Your task to perform on an android device: delete the emails in spam in the gmail app Image 0: 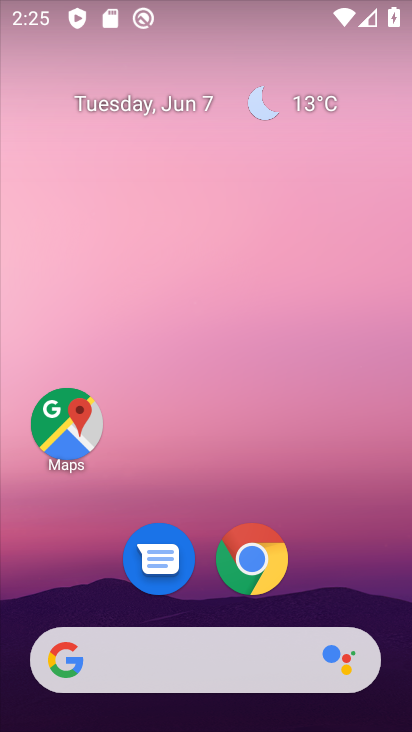
Step 0: drag from (331, 597) to (291, 61)
Your task to perform on an android device: delete the emails in spam in the gmail app Image 1: 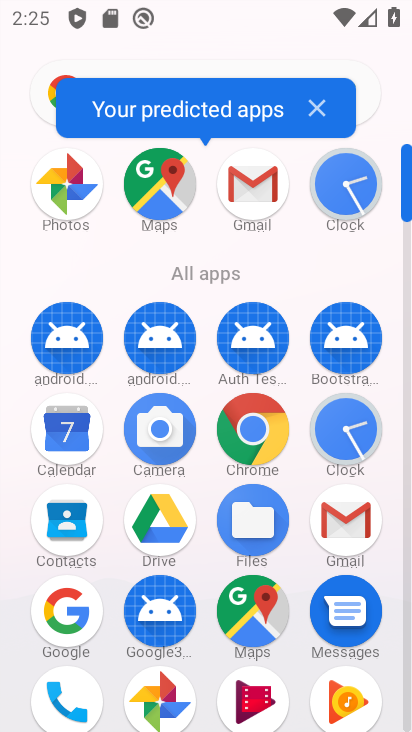
Step 1: click (252, 182)
Your task to perform on an android device: delete the emails in spam in the gmail app Image 2: 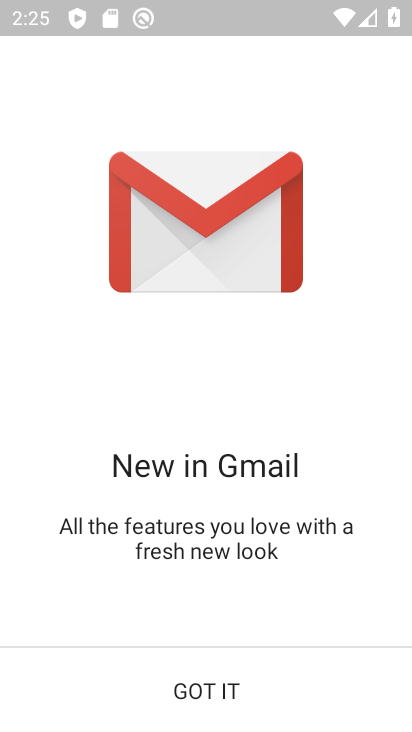
Step 2: click (212, 688)
Your task to perform on an android device: delete the emails in spam in the gmail app Image 3: 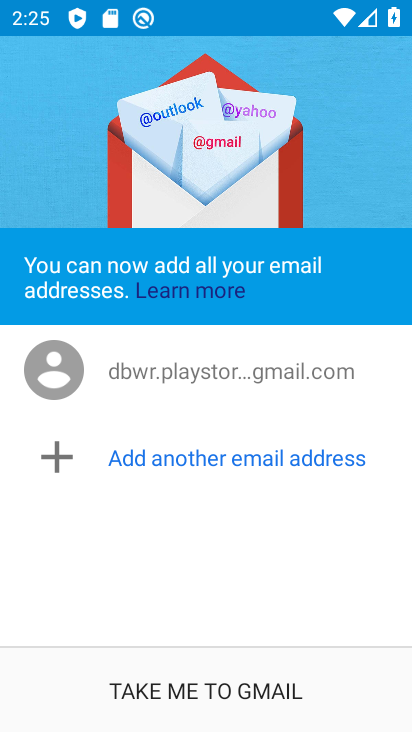
Step 3: click (198, 689)
Your task to perform on an android device: delete the emails in spam in the gmail app Image 4: 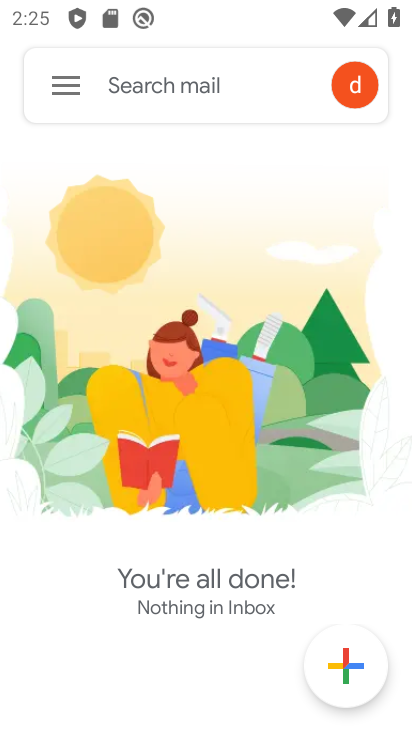
Step 4: click (66, 86)
Your task to perform on an android device: delete the emails in spam in the gmail app Image 5: 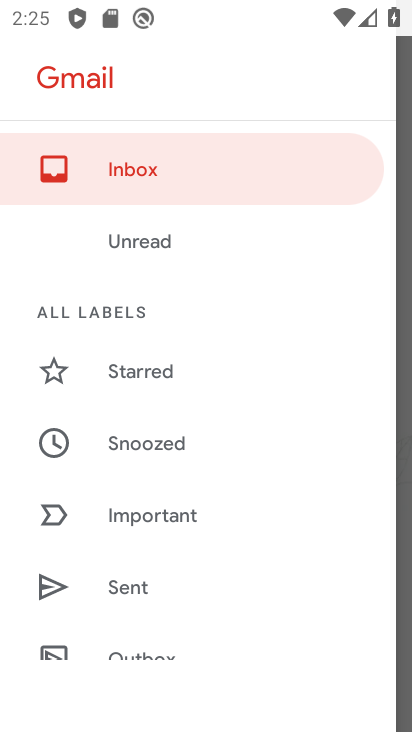
Step 5: drag from (138, 414) to (193, 271)
Your task to perform on an android device: delete the emails in spam in the gmail app Image 6: 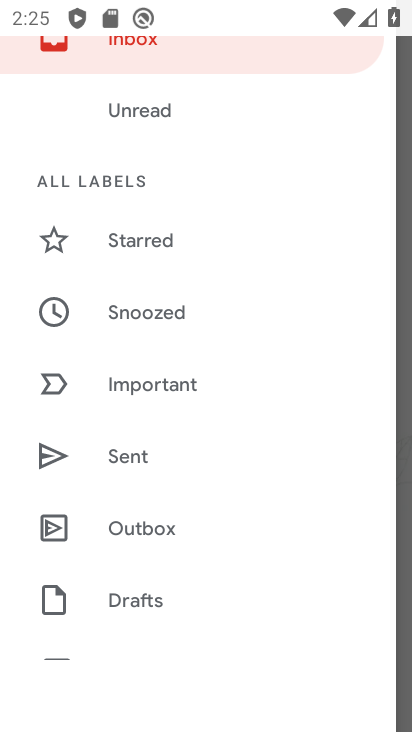
Step 6: drag from (137, 414) to (183, 310)
Your task to perform on an android device: delete the emails in spam in the gmail app Image 7: 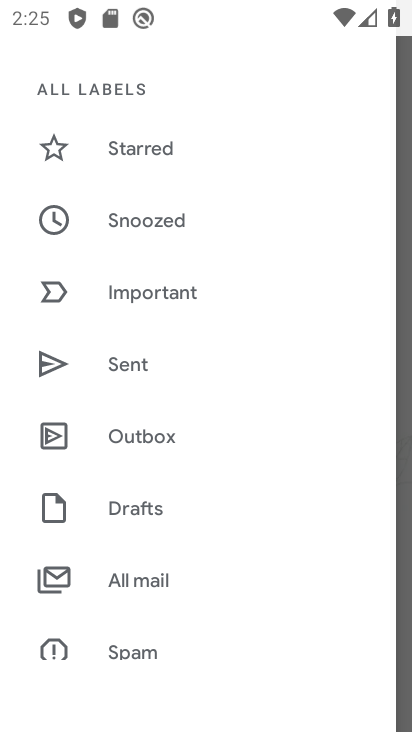
Step 7: drag from (137, 416) to (175, 329)
Your task to perform on an android device: delete the emails in spam in the gmail app Image 8: 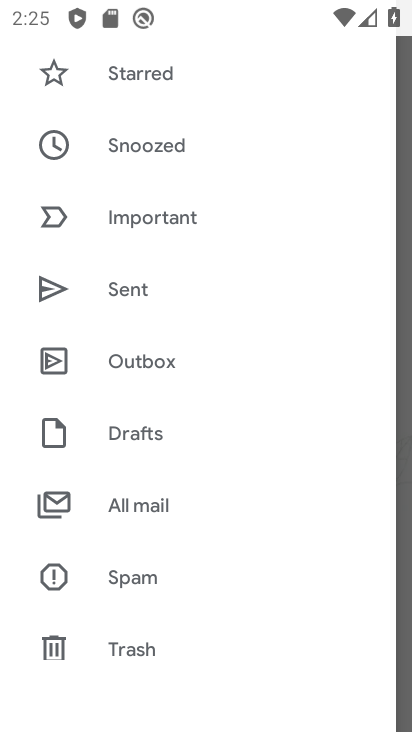
Step 8: drag from (132, 468) to (186, 386)
Your task to perform on an android device: delete the emails in spam in the gmail app Image 9: 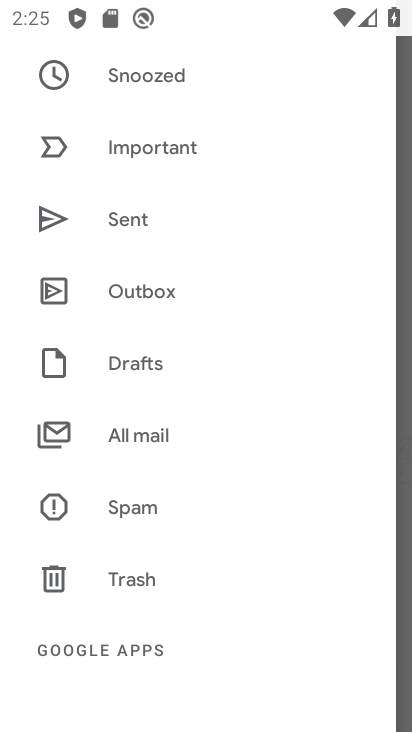
Step 9: click (143, 514)
Your task to perform on an android device: delete the emails in spam in the gmail app Image 10: 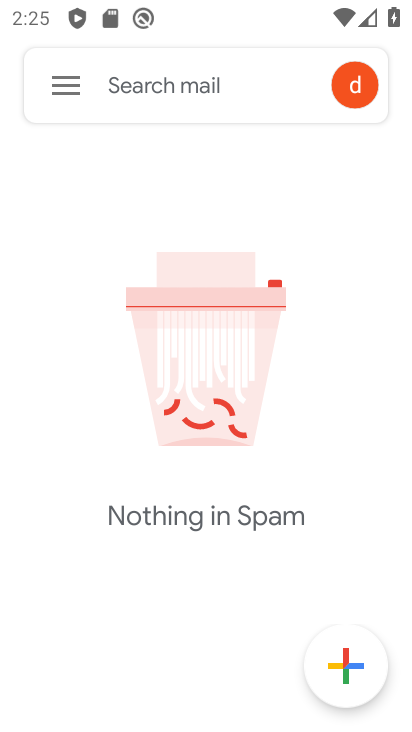
Step 10: task complete